Your task to perform on an android device: Search for pizza restaurants on Maps Image 0: 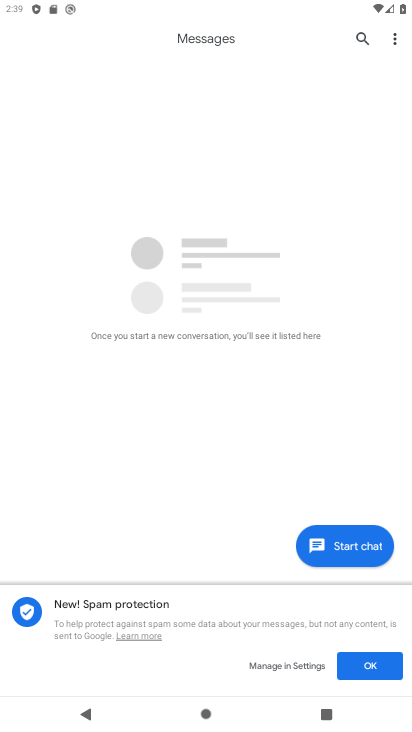
Step 0: press home button
Your task to perform on an android device: Search for pizza restaurants on Maps Image 1: 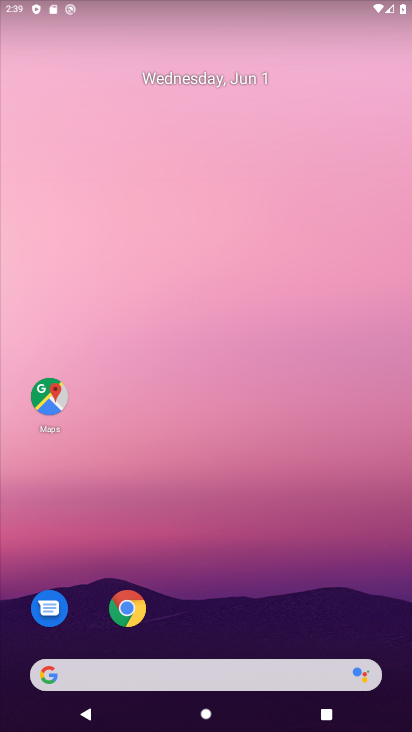
Step 1: click (58, 408)
Your task to perform on an android device: Search for pizza restaurants on Maps Image 2: 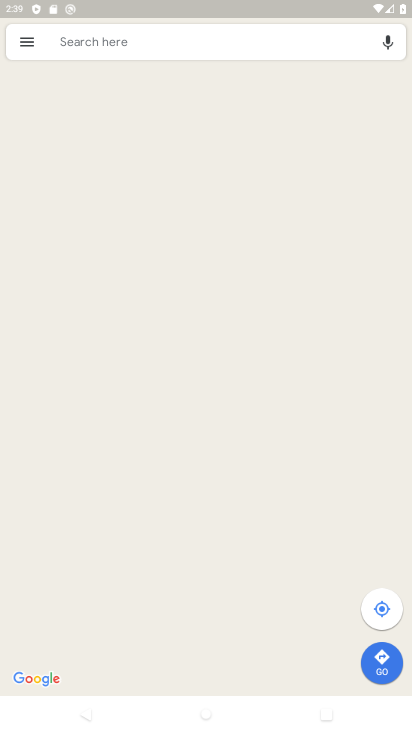
Step 2: click (130, 41)
Your task to perform on an android device: Search for pizza restaurants on Maps Image 3: 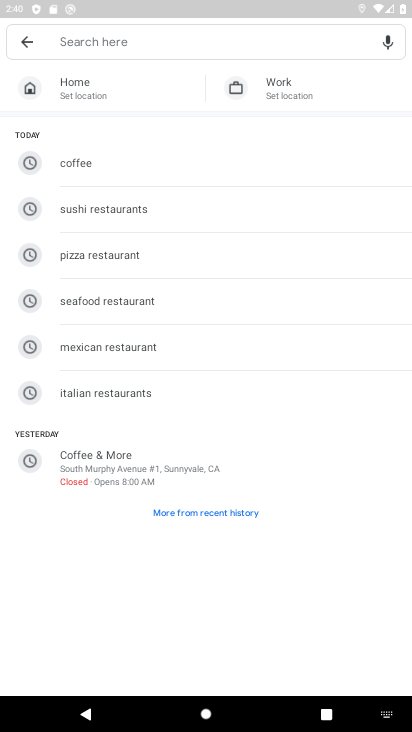
Step 3: type "Pizza restaurants "
Your task to perform on an android device: Search for pizza restaurants on Maps Image 4: 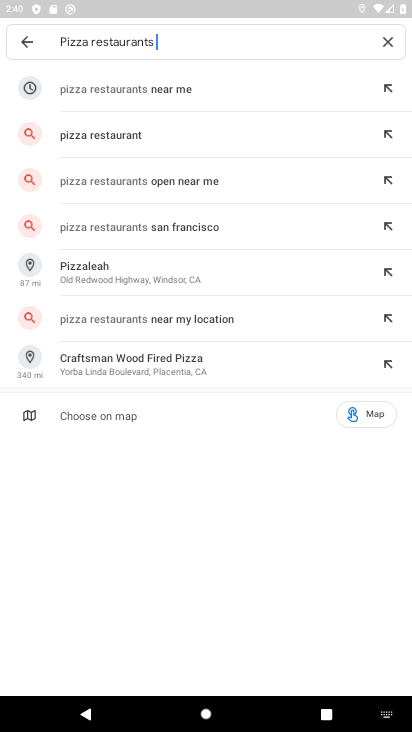
Step 4: click (208, 124)
Your task to perform on an android device: Search for pizza restaurants on Maps Image 5: 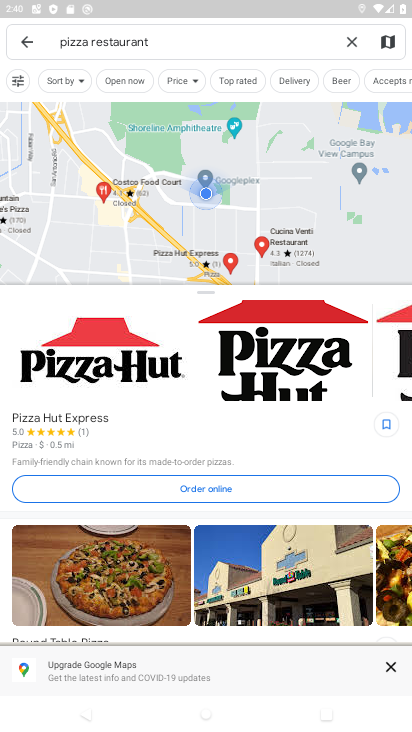
Step 5: task complete